Your task to perform on an android device: Open CNN.com Image 0: 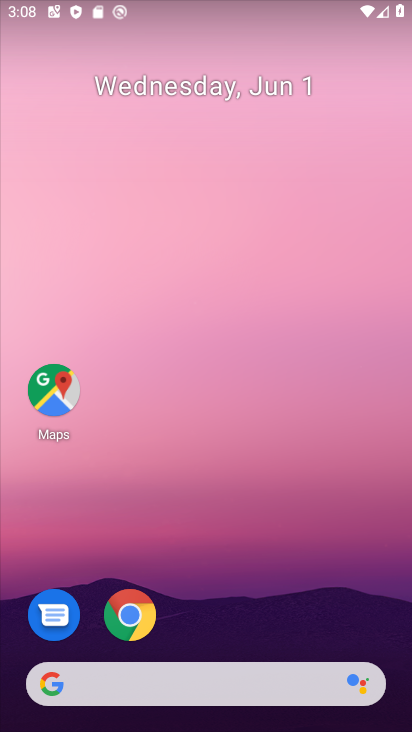
Step 0: press home button
Your task to perform on an android device: Open CNN.com Image 1: 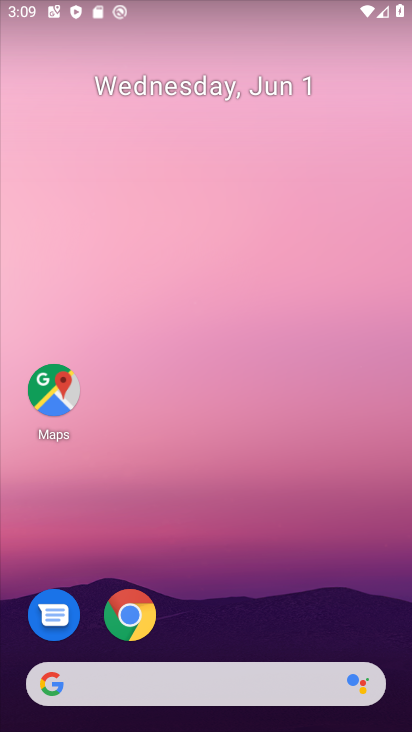
Step 1: click (123, 607)
Your task to perform on an android device: Open CNN.com Image 2: 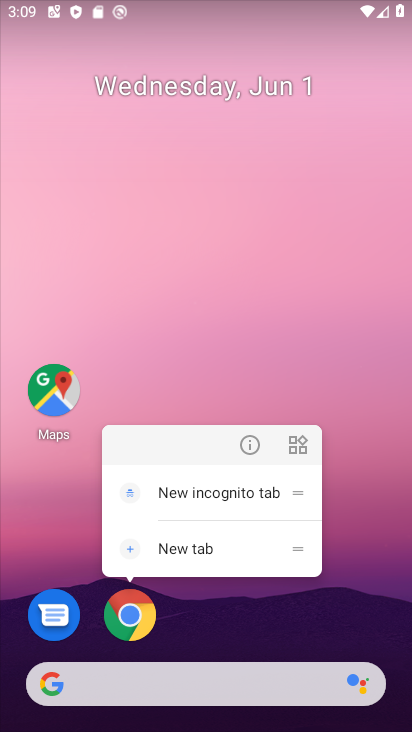
Step 2: click (125, 614)
Your task to perform on an android device: Open CNN.com Image 3: 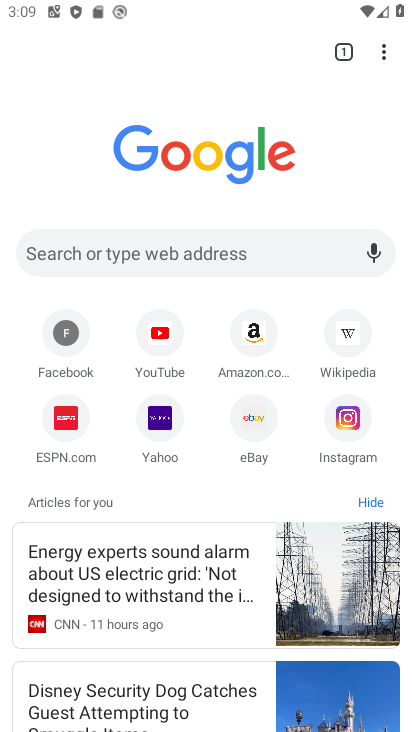
Step 3: click (134, 251)
Your task to perform on an android device: Open CNN.com Image 4: 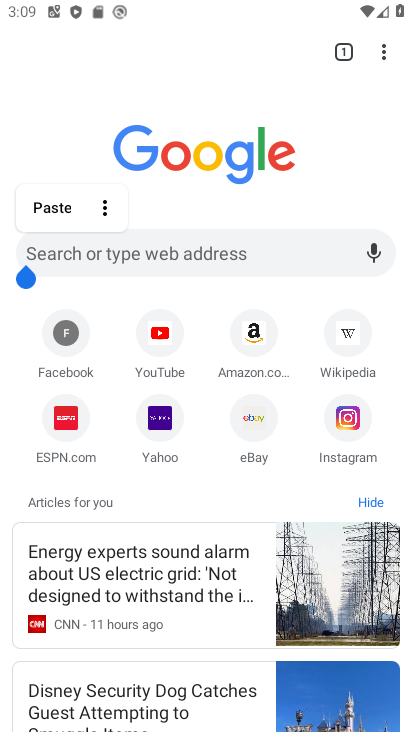
Step 4: click (139, 251)
Your task to perform on an android device: Open CNN.com Image 5: 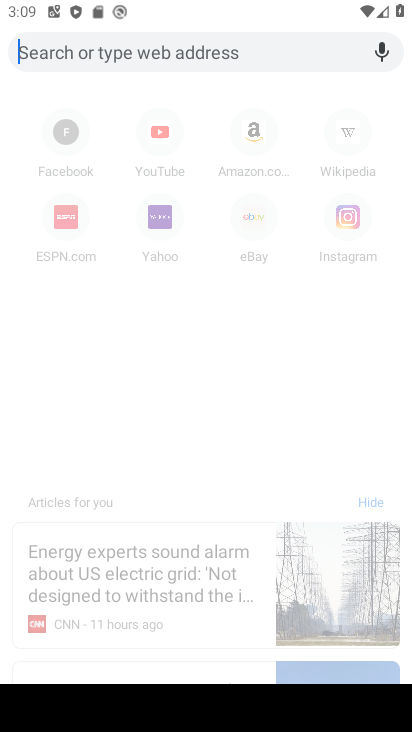
Step 5: type "cnn.com"
Your task to perform on an android device: Open CNN.com Image 6: 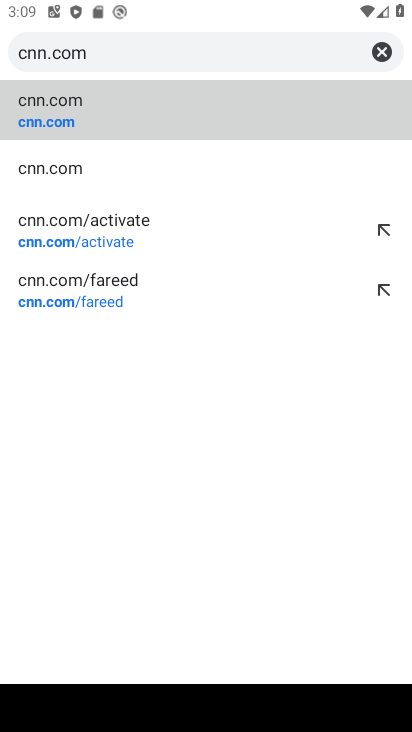
Step 6: click (149, 125)
Your task to perform on an android device: Open CNN.com Image 7: 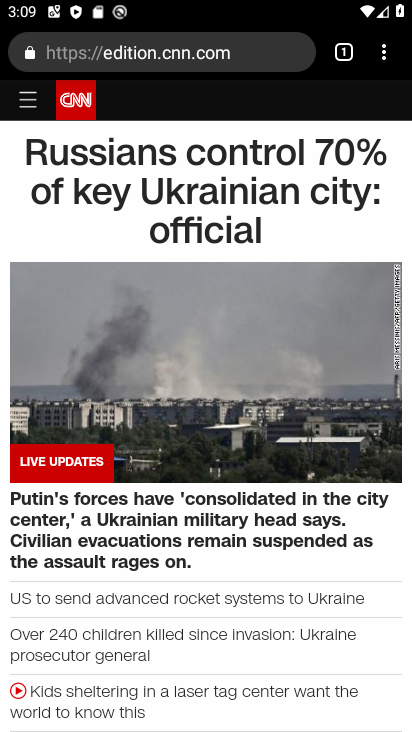
Step 7: drag from (240, 638) to (273, 209)
Your task to perform on an android device: Open CNN.com Image 8: 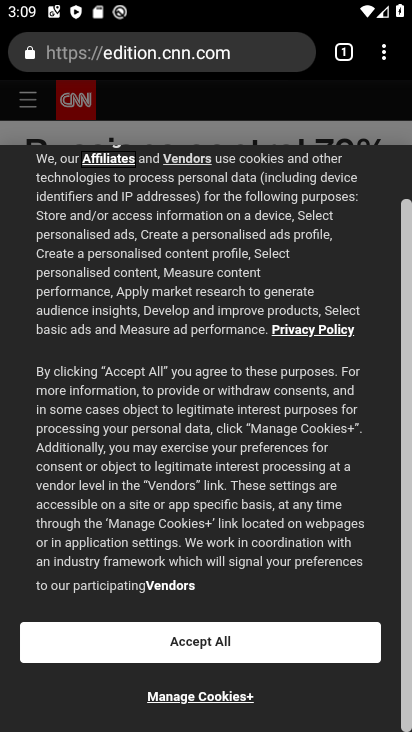
Step 8: click (186, 648)
Your task to perform on an android device: Open CNN.com Image 9: 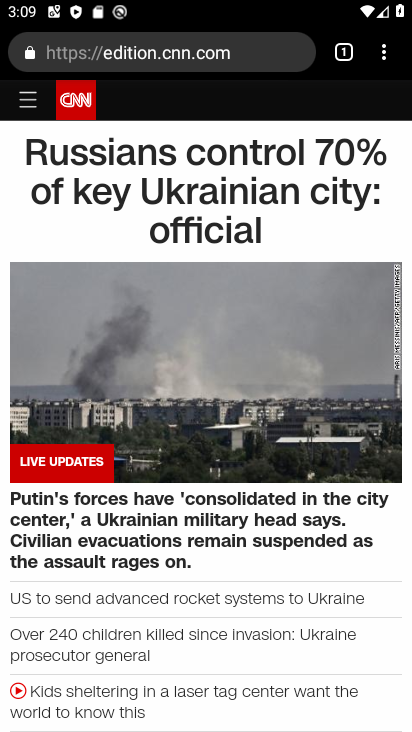
Step 9: task complete